Your task to perform on an android device: turn pop-ups off in chrome Image 0: 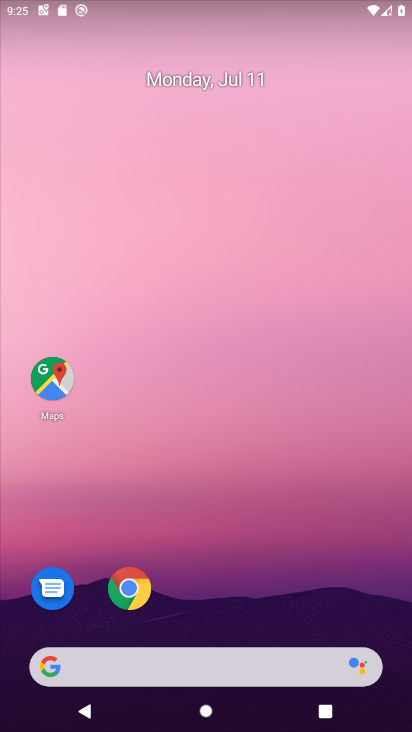
Step 0: drag from (252, 600) to (252, 104)
Your task to perform on an android device: turn pop-ups off in chrome Image 1: 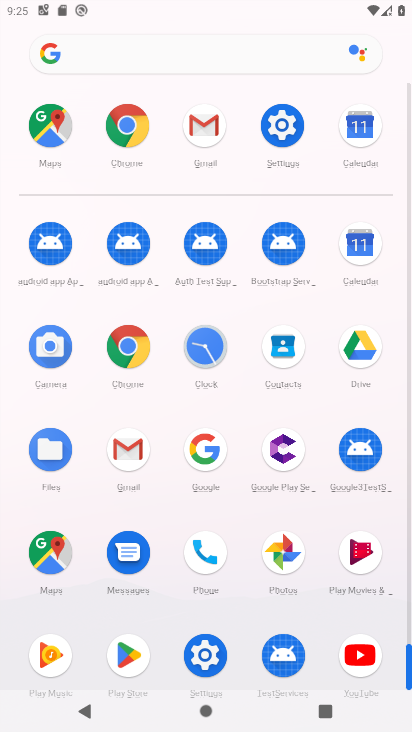
Step 1: click (137, 117)
Your task to perform on an android device: turn pop-ups off in chrome Image 2: 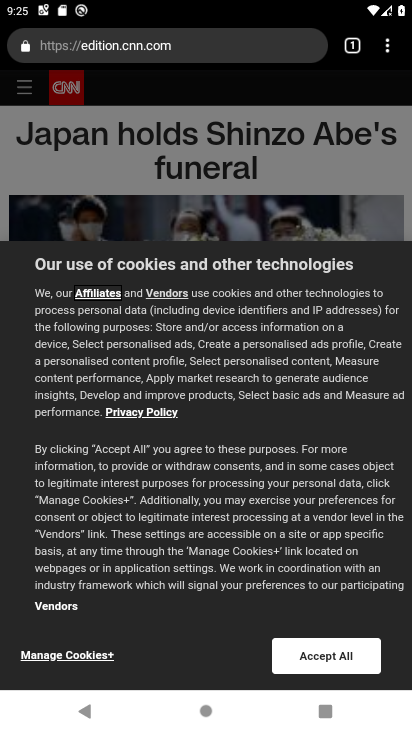
Step 2: click (391, 45)
Your task to perform on an android device: turn pop-ups off in chrome Image 3: 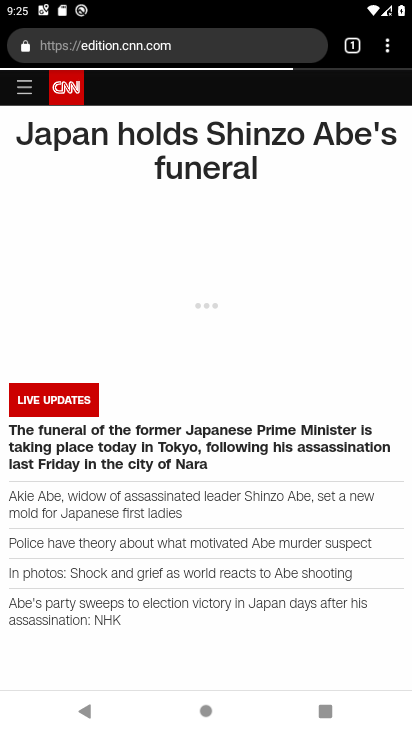
Step 3: click (391, 45)
Your task to perform on an android device: turn pop-ups off in chrome Image 4: 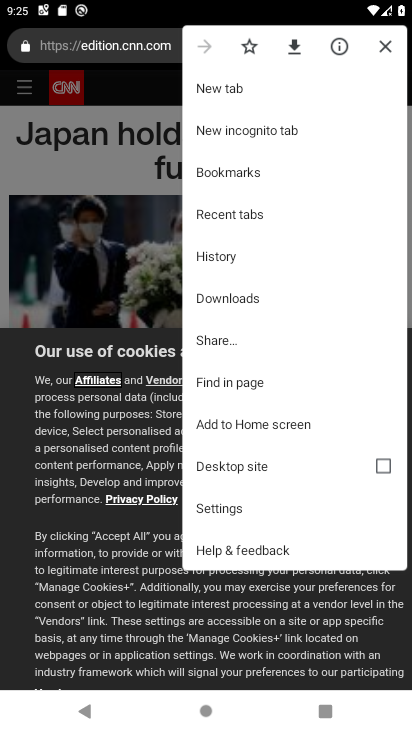
Step 4: click (258, 503)
Your task to perform on an android device: turn pop-ups off in chrome Image 5: 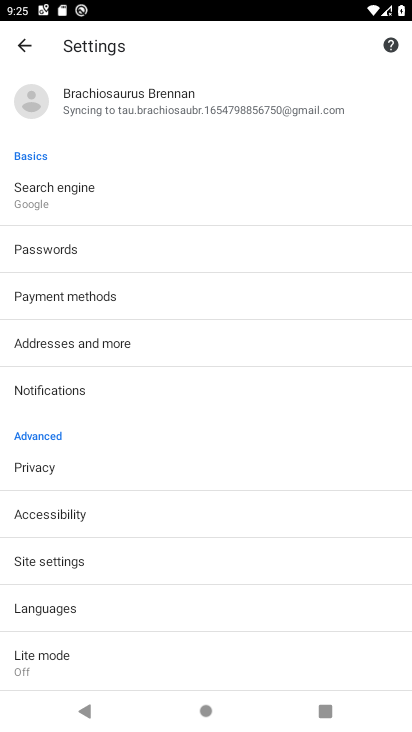
Step 5: click (92, 551)
Your task to perform on an android device: turn pop-ups off in chrome Image 6: 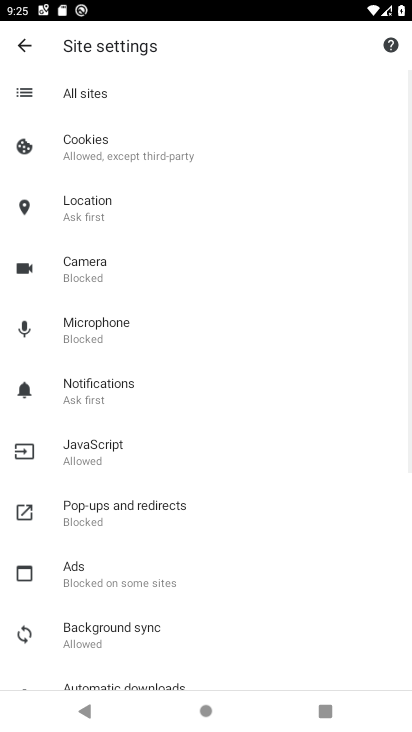
Step 6: click (163, 513)
Your task to perform on an android device: turn pop-ups off in chrome Image 7: 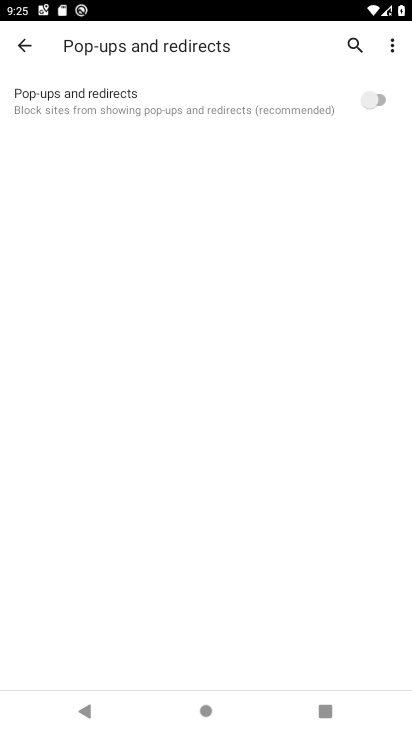
Step 7: task complete